Your task to perform on an android device: turn on location history Image 0: 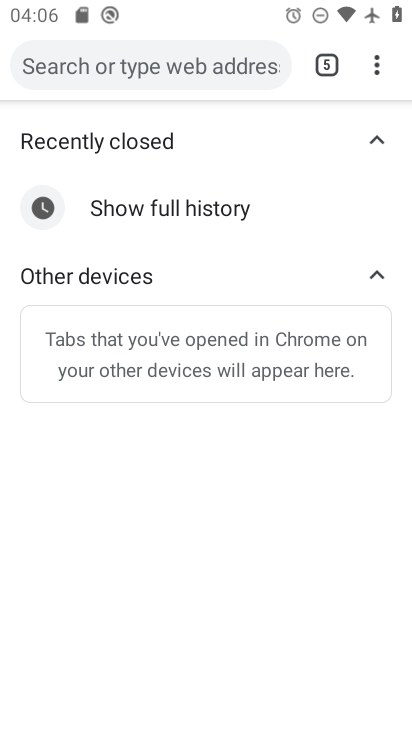
Step 0: press home button
Your task to perform on an android device: turn on location history Image 1: 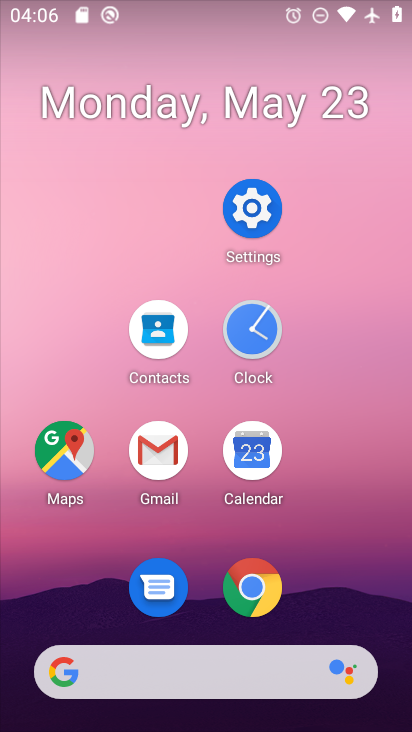
Step 1: click (235, 195)
Your task to perform on an android device: turn on location history Image 2: 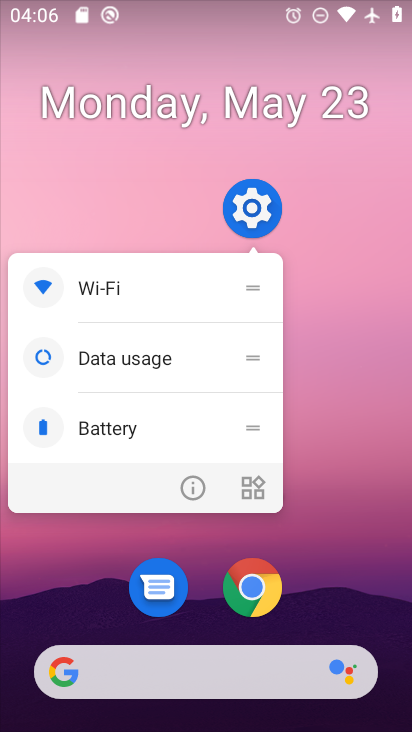
Step 2: click (248, 216)
Your task to perform on an android device: turn on location history Image 3: 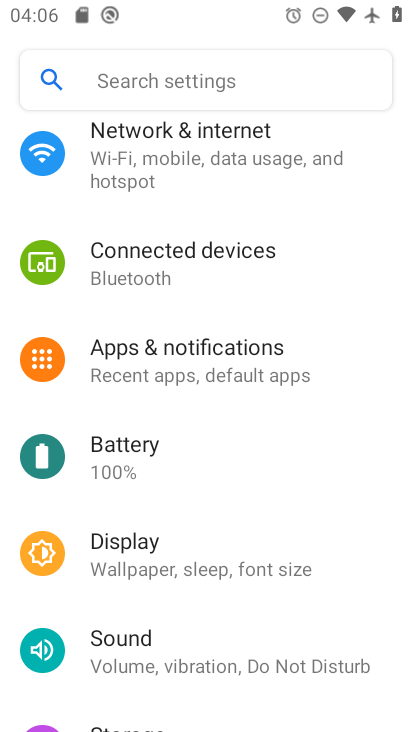
Step 3: drag from (200, 633) to (204, 428)
Your task to perform on an android device: turn on location history Image 4: 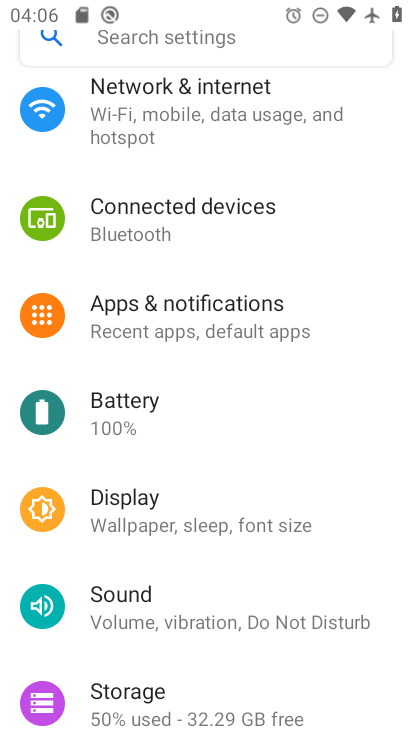
Step 4: drag from (213, 642) to (217, 270)
Your task to perform on an android device: turn on location history Image 5: 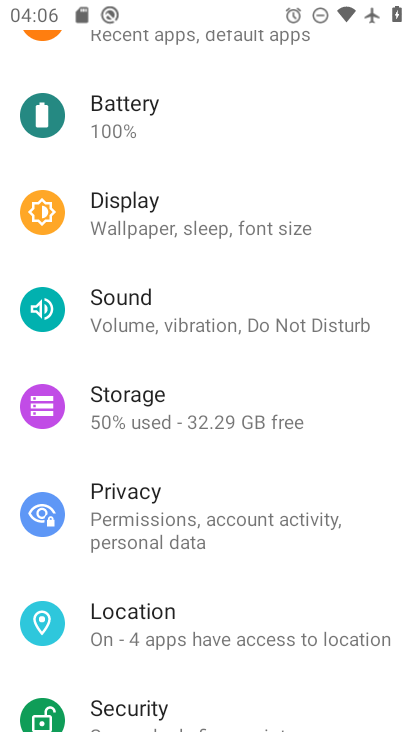
Step 5: click (211, 611)
Your task to perform on an android device: turn on location history Image 6: 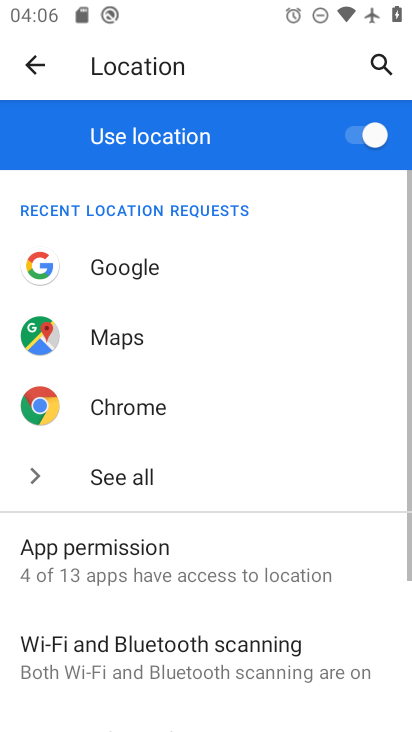
Step 6: drag from (165, 592) to (191, 313)
Your task to perform on an android device: turn on location history Image 7: 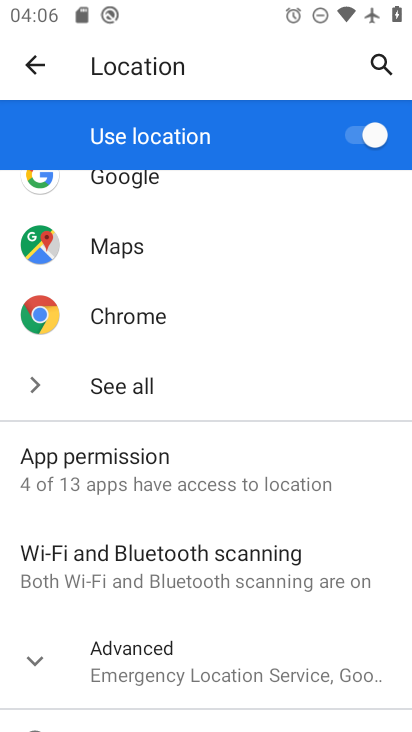
Step 7: click (181, 682)
Your task to perform on an android device: turn on location history Image 8: 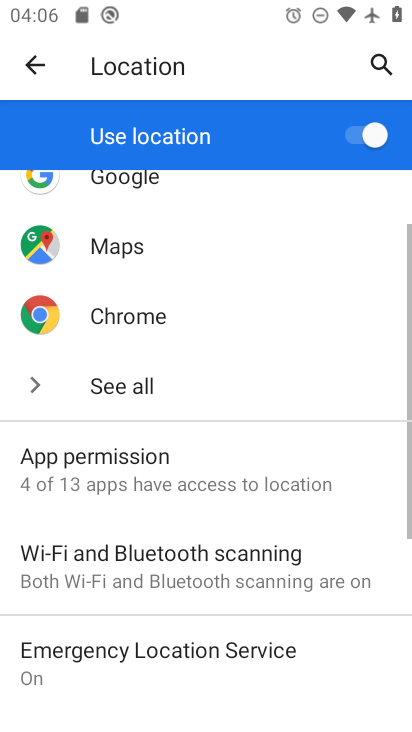
Step 8: drag from (181, 682) to (217, 341)
Your task to perform on an android device: turn on location history Image 9: 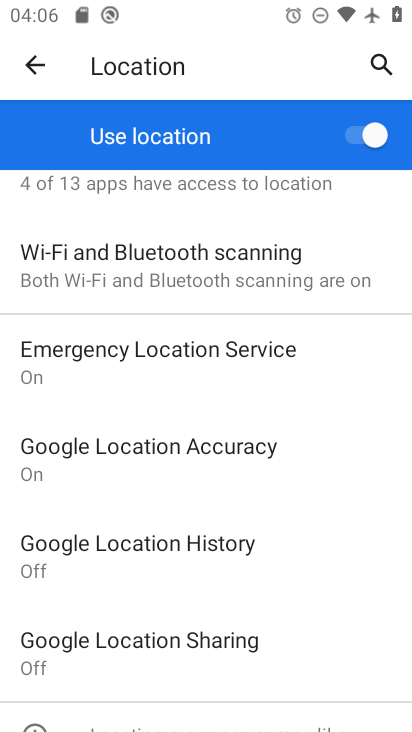
Step 9: click (266, 567)
Your task to perform on an android device: turn on location history Image 10: 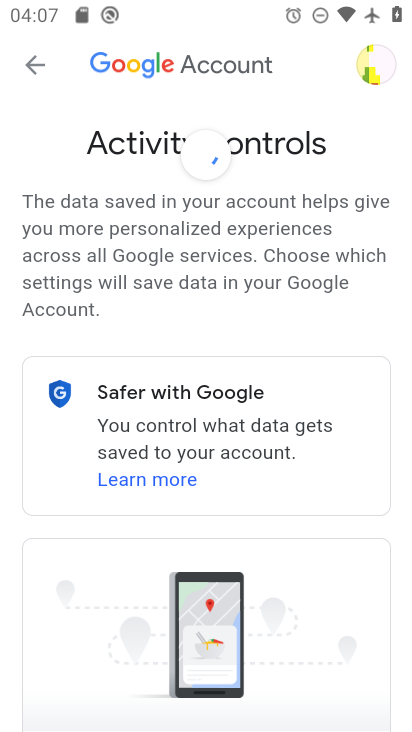
Step 10: drag from (313, 648) to (261, 29)
Your task to perform on an android device: turn on location history Image 11: 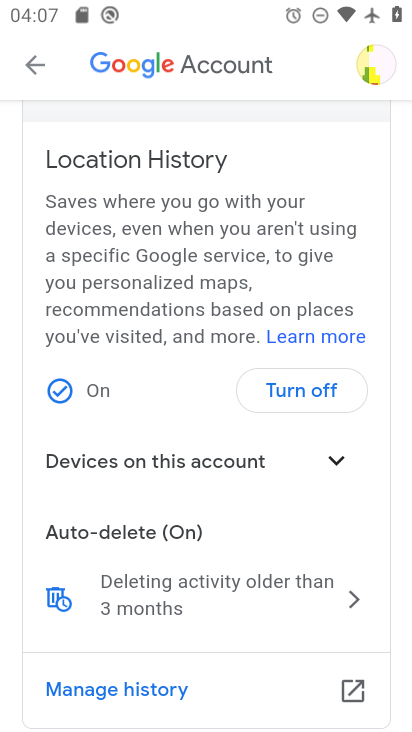
Step 11: click (74, 392)
Your task to perform on an android device: turn on location history Image 12: 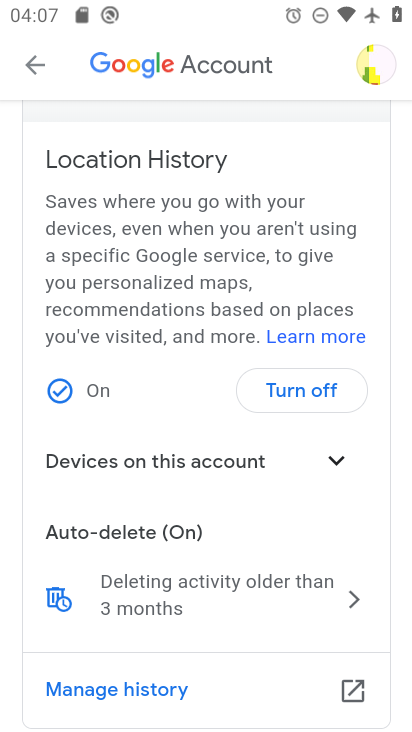
Step 12: click (74, 392)
Your task to perform on an android device: turn on location history Image 13: 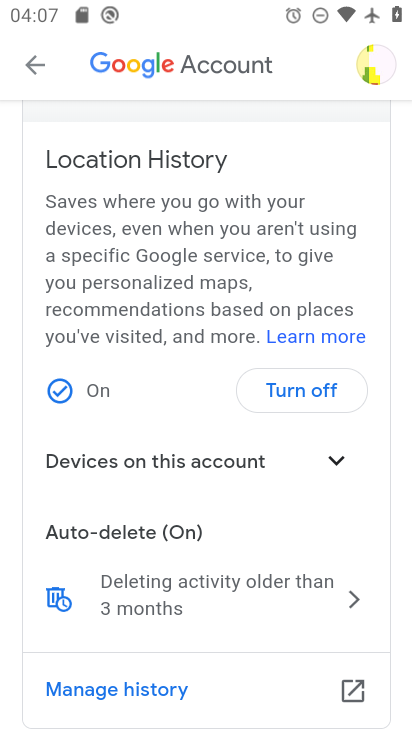
Step 13: click (298, 390)
Your task to perform on an android device: turn on location history Image 14: 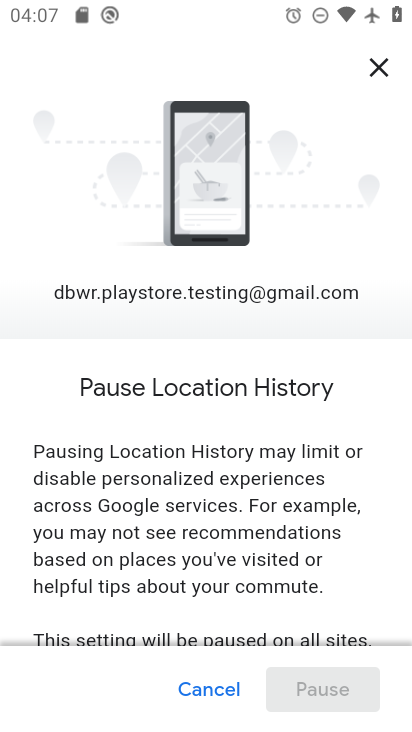
Step 14: drag from (323, 631) to (303, 64)
Your task to perform on an android device: turn on location history Image 15: 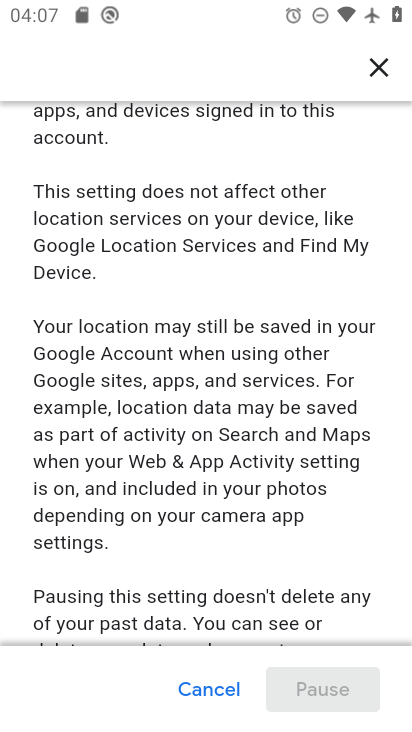
Step 15: drag from (349, 595) to (319, 103)
Your task to perform on an android device: turn on location history Image 16: 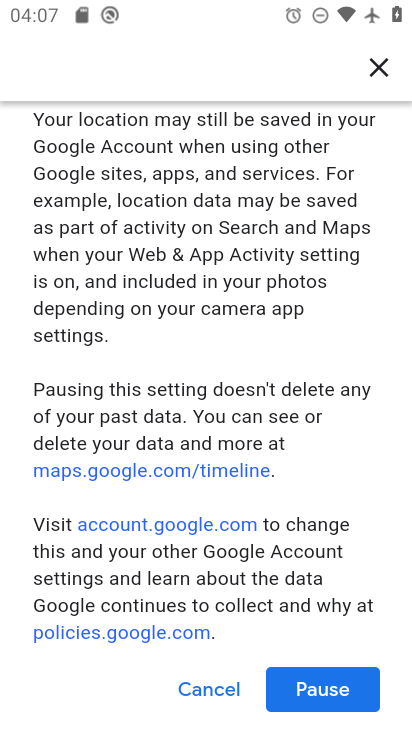
Step 16: click (313, 681)
Your task to perform on an android device: turn on location history Image 17: 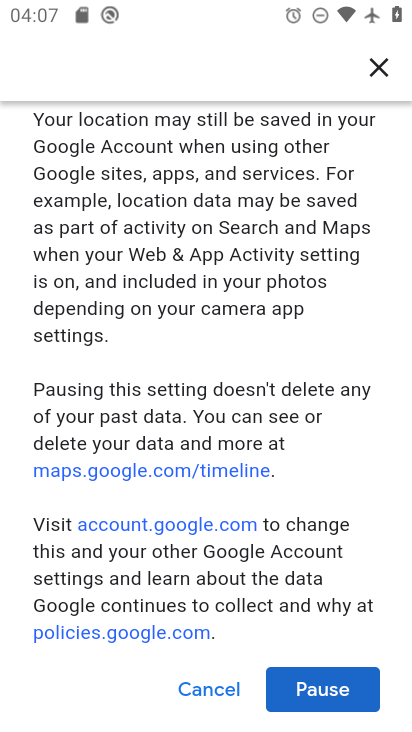
Step 17: task complete